Your task to perform on an android device: Search for Italian restaurants on Maps Image 0: 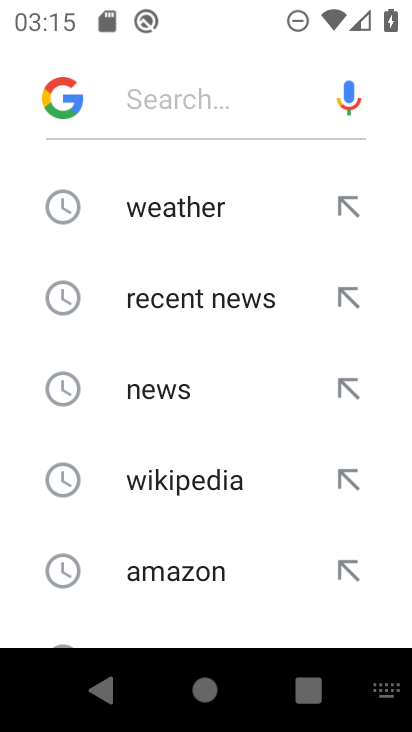
Step 0: press home button
Your task to perform on an android device: Search for Italian restaurants on Maps Image 1: 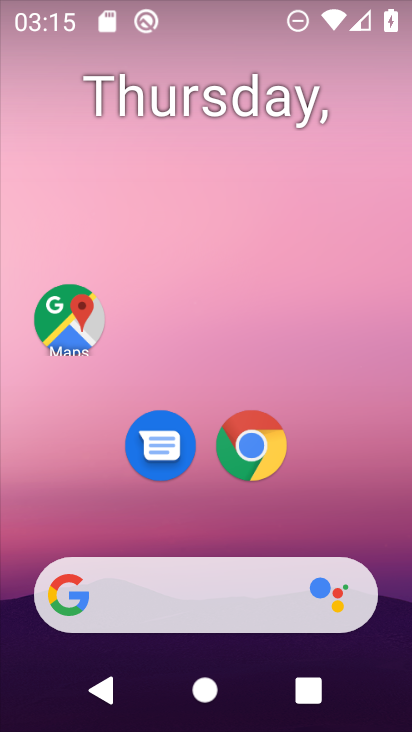
Step 1: click (68, 322)
Your task to perform on an android device: Search for Italian restaurants on Maps Image 2: 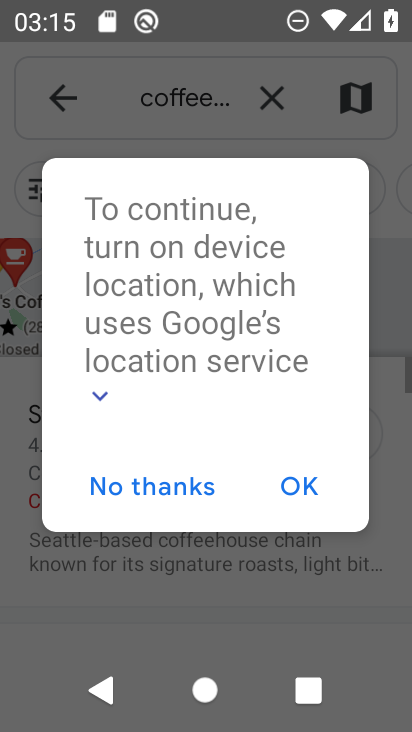
Step 2: click (96, 477)
Your task to perform on an android device: Search for Italian restaurants on Maps Image 3: 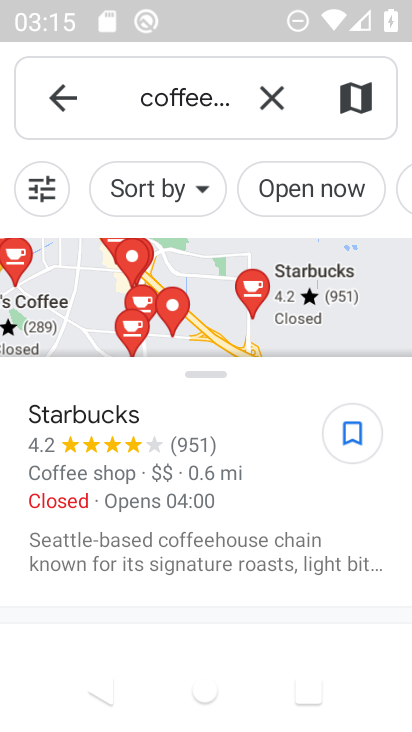
Step 3: click (264, 98)
Your task to perform on an android device: Search for Italian restaurants on Maps Image 4: 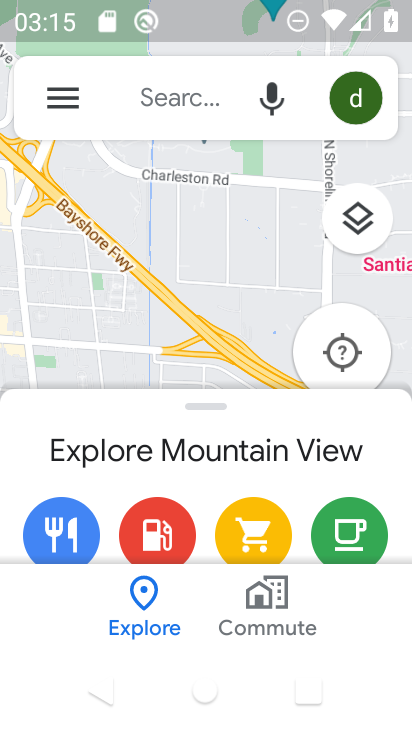
Step 4: click (133, 97)
Your task to perform on an android device: Search for Italian restaurants on Maps Image 5: 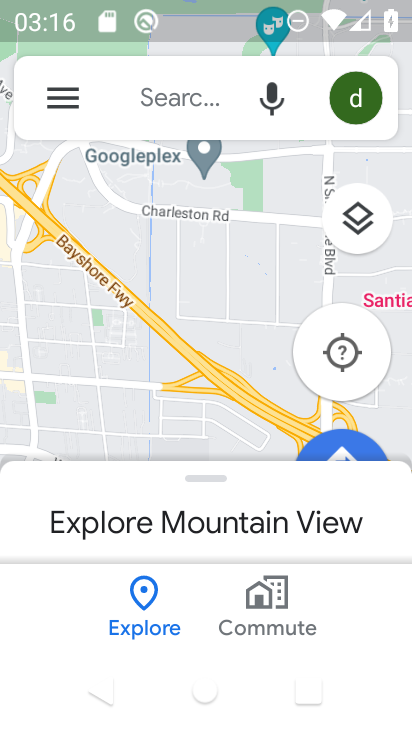
Step 5: click (147, 101)
Your task to perform on an android device: Search for Italian restaurants on Maps Image 6: 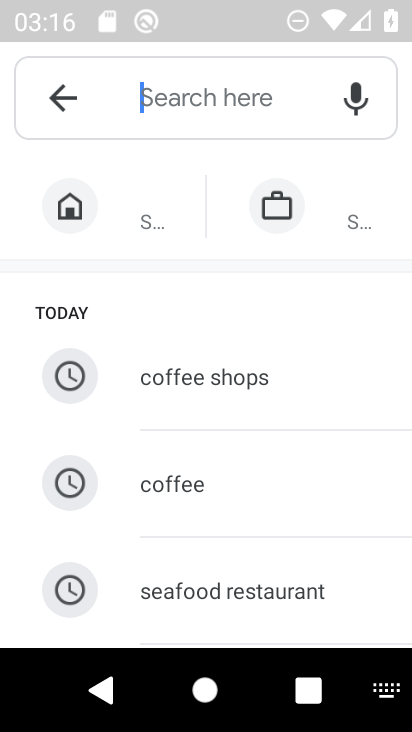
Step 6: type "italian restaurants "
Your task to perform on an android device: Search for Italian restaurants on Maps Image 7: 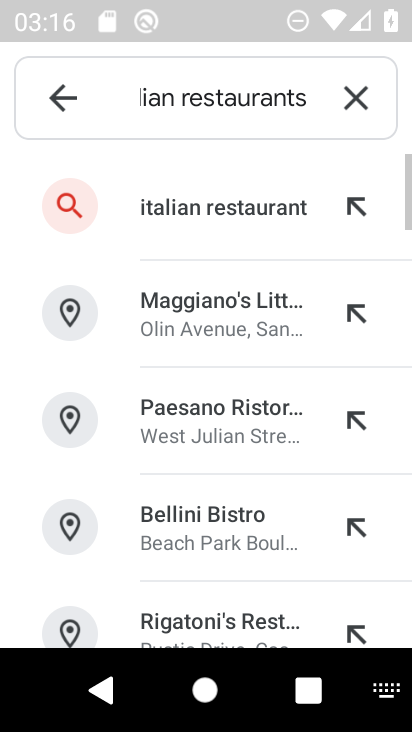
Step 7: click (242, 210)
Your task to perform on an android device: Search for Italian restaurants on Maps Image 8: 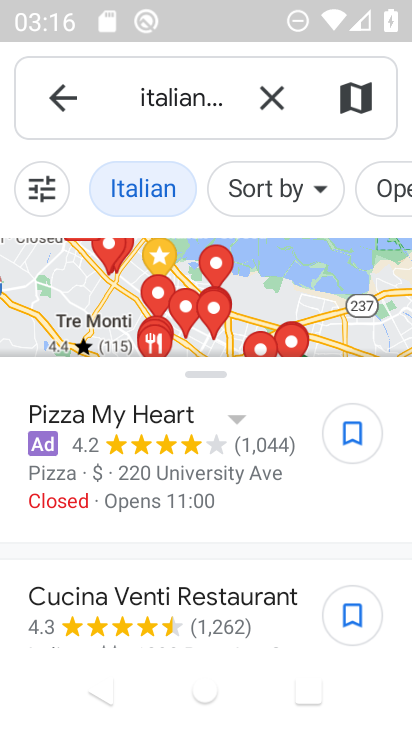
Step 8: task complete